Your task to perform on an android device: turn smart compose on in the gmail app Image 0: 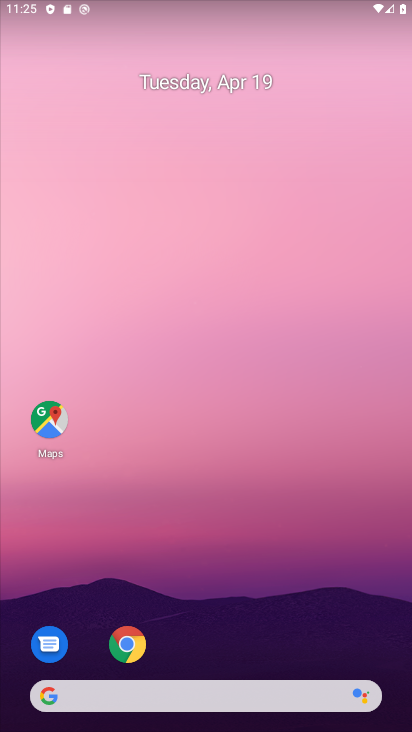
Step 0: drag from (209, 725) to (217, 129)
Your task to perform on an android device: turn smart compose on in the gmail app Image 1: 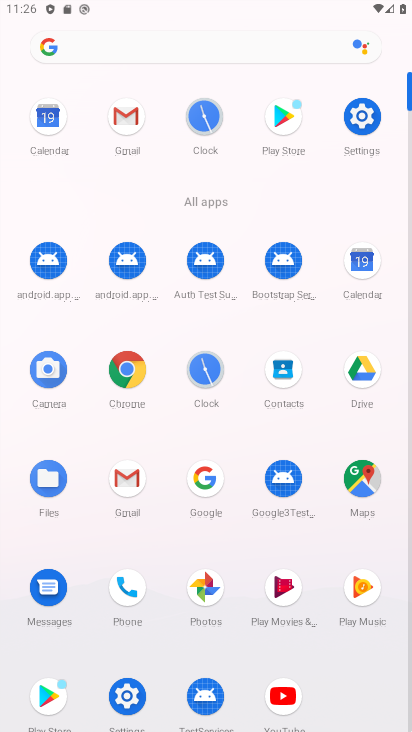
Step 1: click (127, 475)
Your task to perform on an android device: turn smart compose on in the gmail app Image 2: 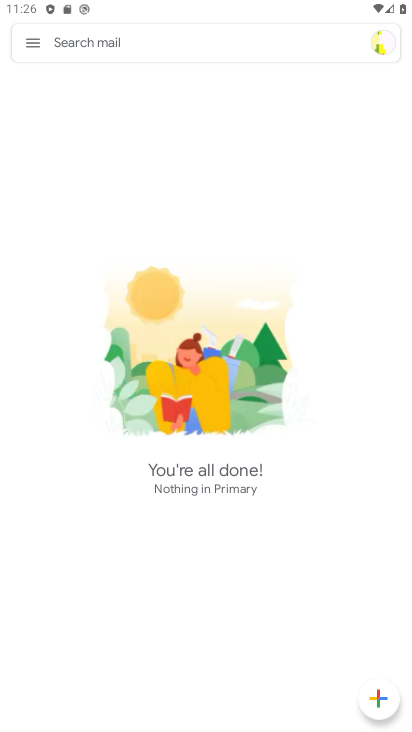
Step 2: click (33, 45)
Your task to perform on an android device: turn smart compose on in the gmail app Image 3: 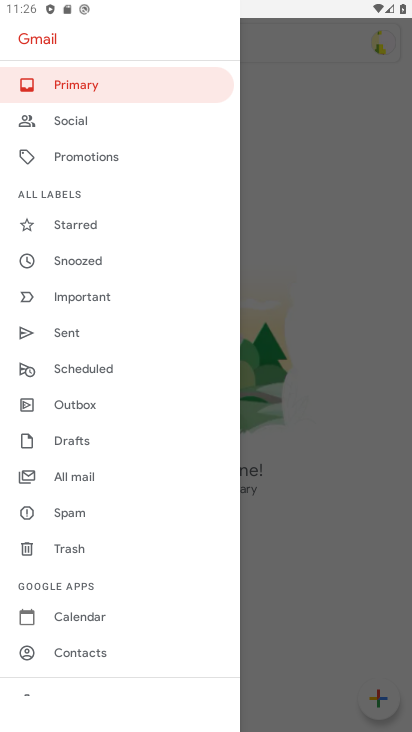
Step 3: drag from (116, 638) to (141, 306)
Your task to perform on an android device: turn smart compose on in the gmail app Image 4: 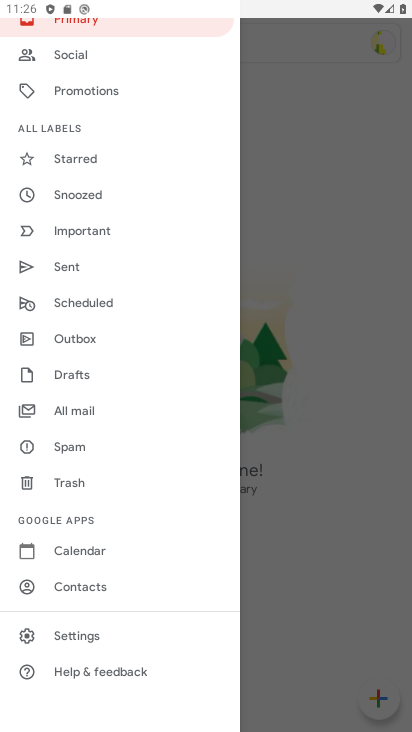
Step 4: click (76, 635)
Your task to perform on an android device: turn smart compose on in the gmail app Image 5: 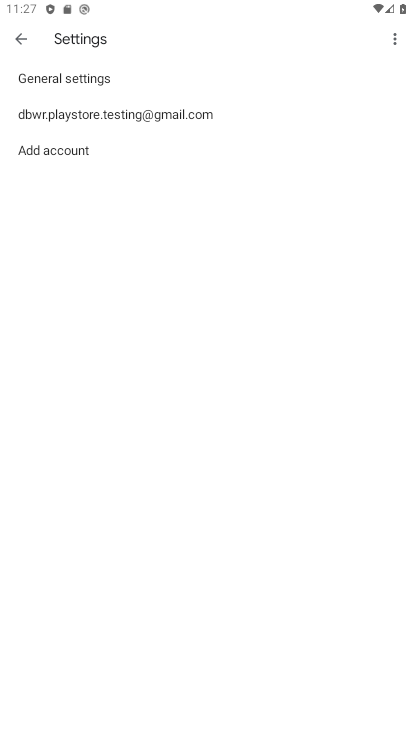
Step 5: click (172, 115)
Your task to perform on an android device: turn smart compose on in the gmail app Image 6: 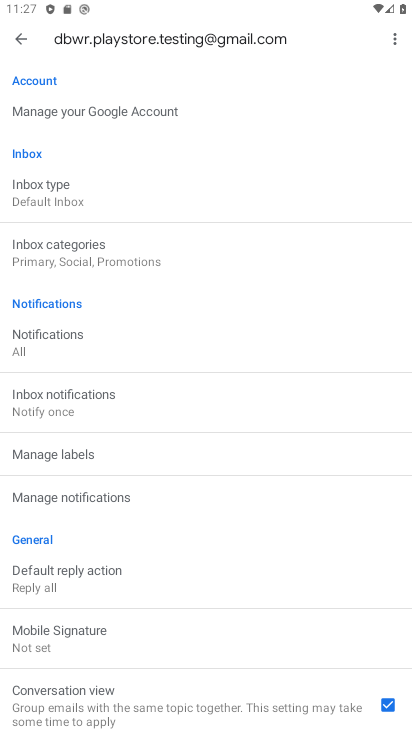
Step 6: task complete